Your task to perform on an android device: toggle data saver in the chrome app Image 0: 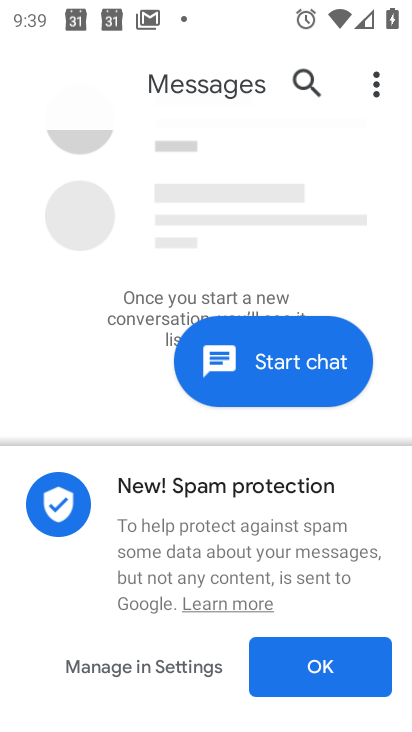
Step 0: press home button
Your task to perform on an android device: toggle data saver in the chrome app Image 1: 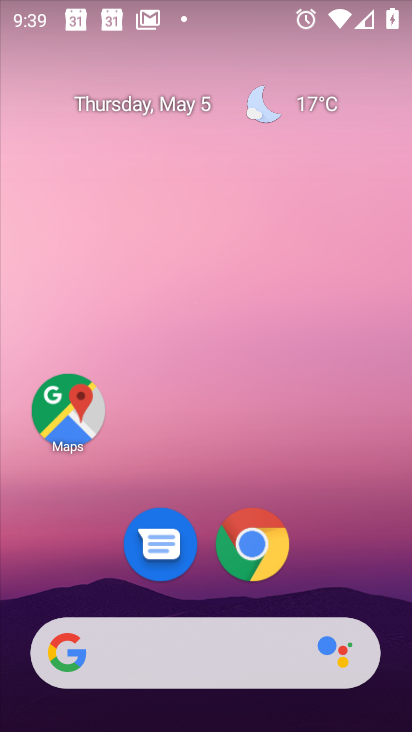
Step 1: drag from (378, 551) to (371, 266)
Your task to perform on an android device: toggle data saver in the chrome app Image 2: 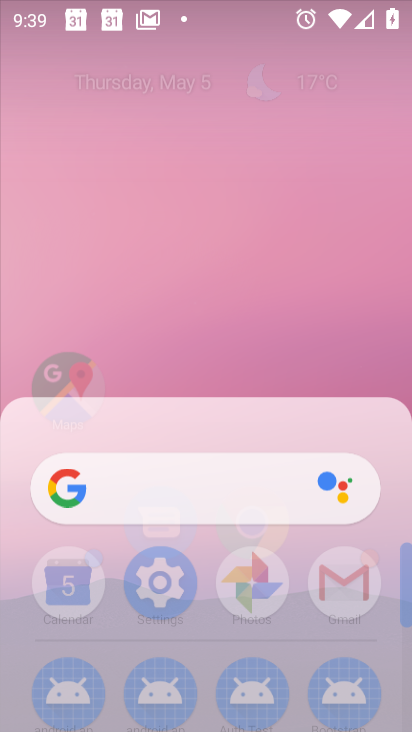
Step 2: click (371, 266)
Your task to perform on an android device: toggle data saver in the chrome app Image 3: 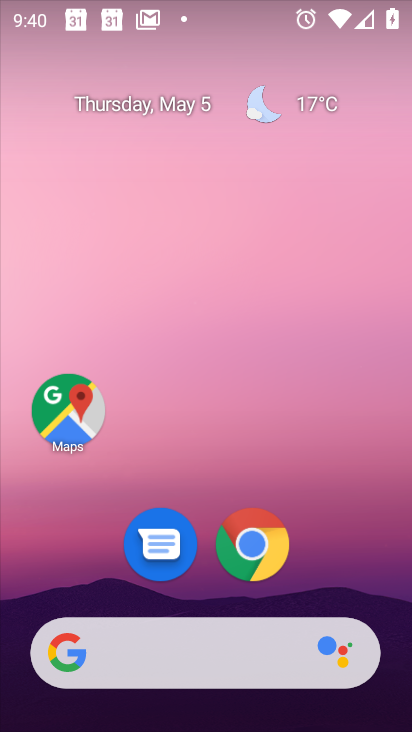
Step 3: click (241, 557)
Your task to perform on an android device: toggle data saver in the chrome app Image 4: 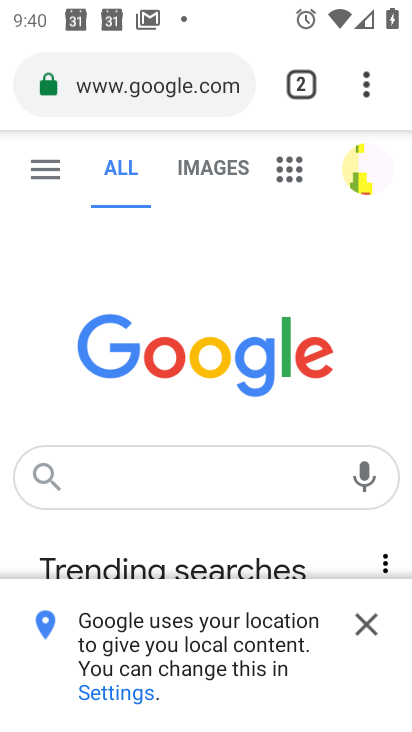
Step 4: click (357, 88)
Your task to perform on an android device: toggle data saver in the chrome app Image 5: 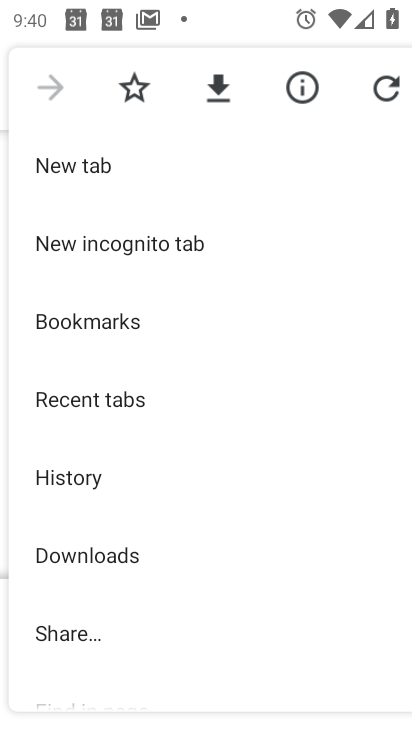
Step 5: drag from (112, 555) to (212, 226)
Your task to perform on an android device: toggle data saver in the chrome app Image 6: 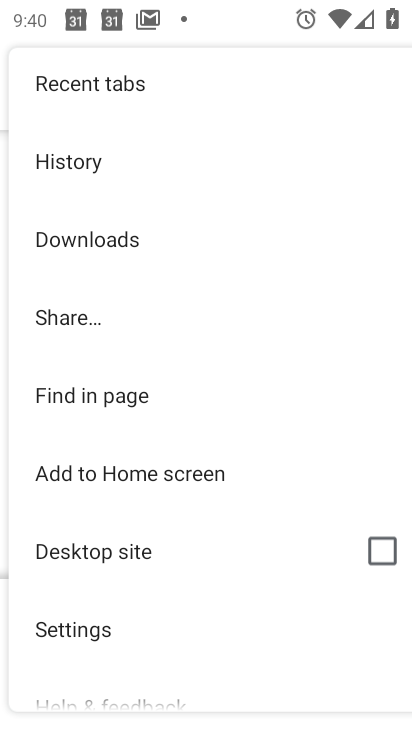
Step 6: click (145, 611)
Your task to perform on an android device: toggle data saver in the chrome app Image 7: 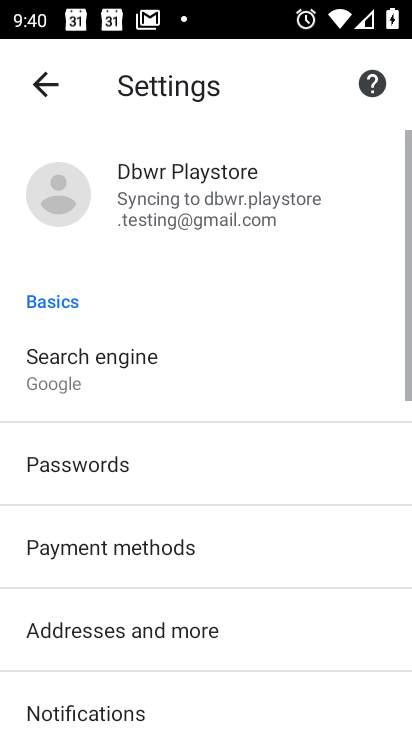
Step 7: drag from (145, 611) to (221, 176)
Your task to perform on an android device: toggle data saver in the chrome app Image 8: 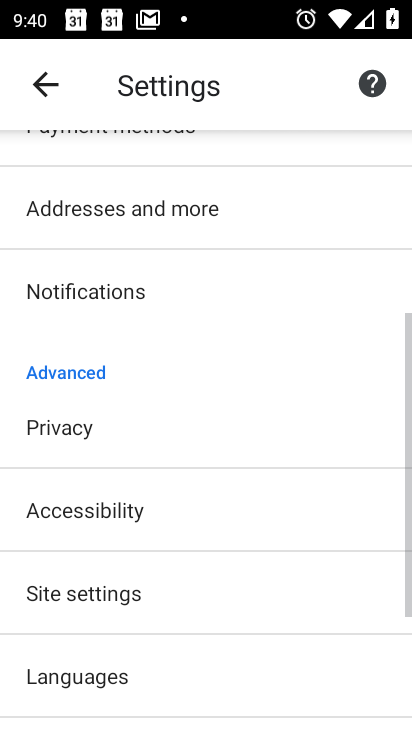
Step 8: drag from (180, 528) to (195, 328)
Your task to perform on an android device: toggle data saver in the chrome app Image 9: 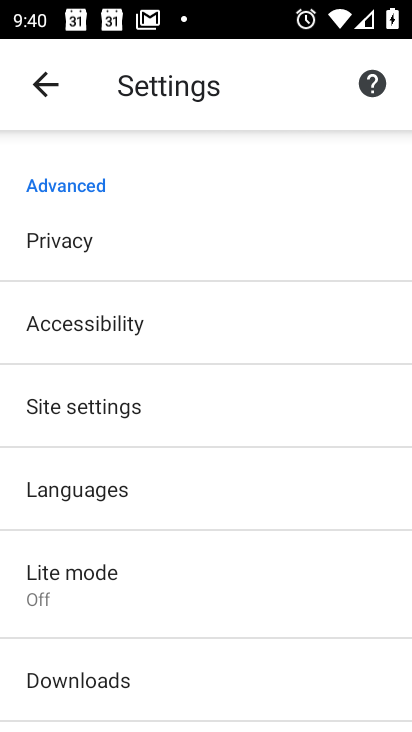
Step 9: drag from (164, 588) to (190, 347)
Your task to perform on an android device: toggle data saver in the chrome app Image 10: 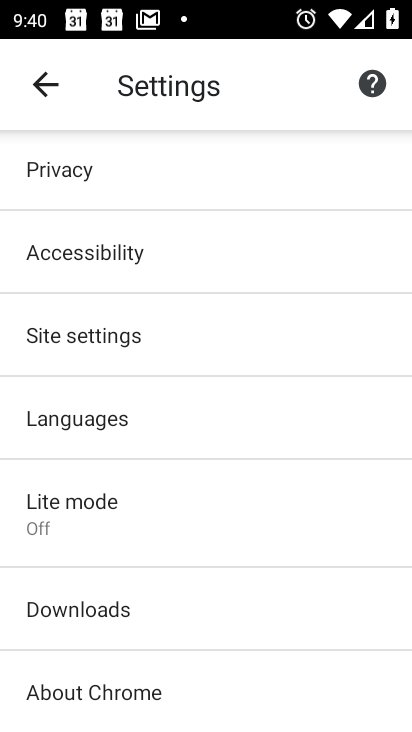
Step 10: click (149, 540)
Your task to perform on an android device: toggle data saver in the chrome app Image 11: 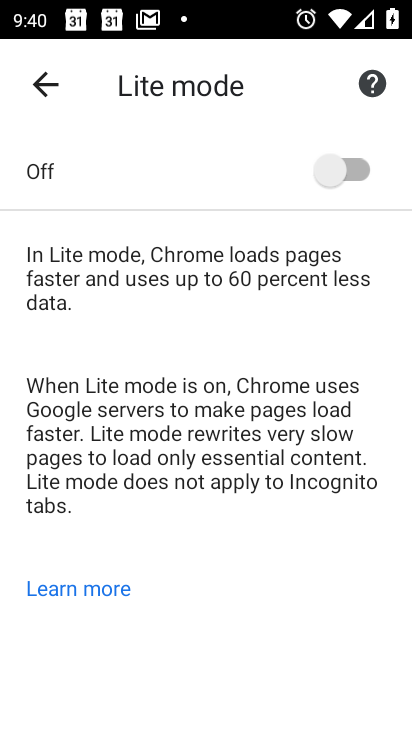
Step 11: click (321, 178)
Your task to perform on an android device: toggle data saver in the chrome app Image 12: 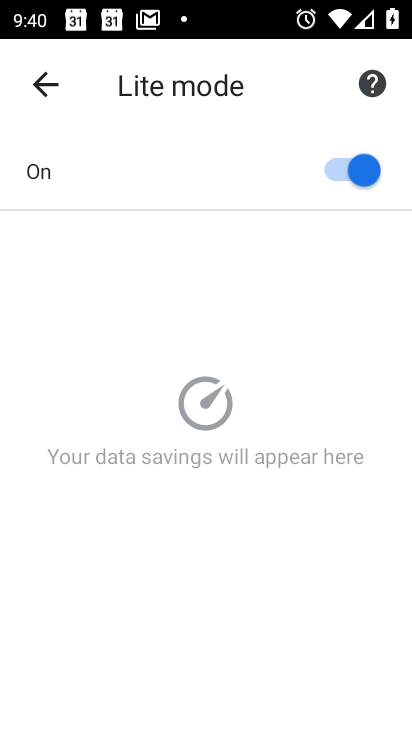
Step 12: task complete